Your task to perform on an android device: What's on my calendar tomorrow? Image 0: 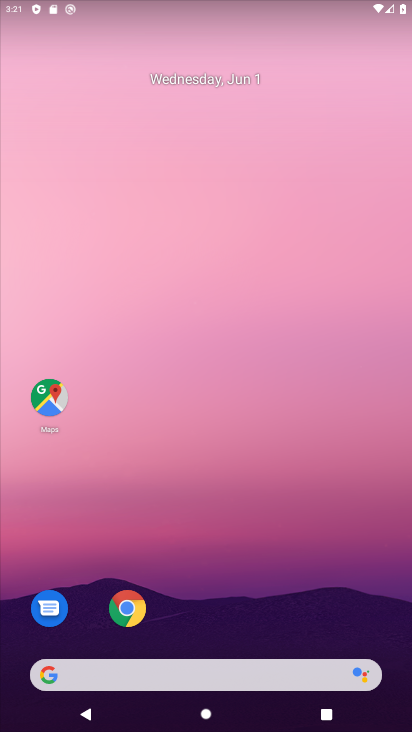
Step 0: drag from (175, 673) to (180, 77)
Your task to perform on an android device: What's on my calendar tomorrow? Image 1: 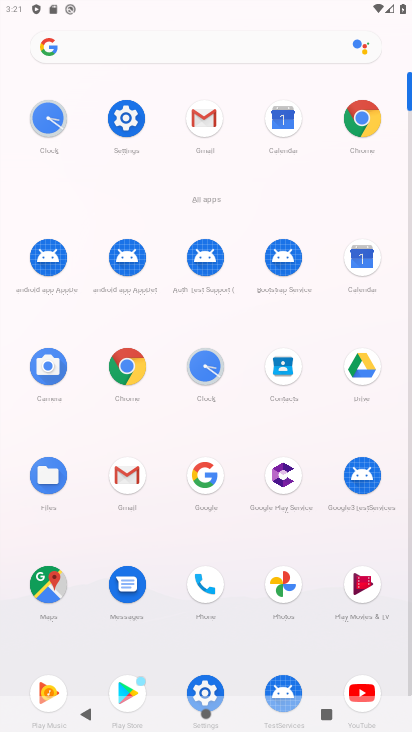
Step 1: click (278, 141)
Your task to perform on an android device: What's on my calendar tomorrow? Image 2: 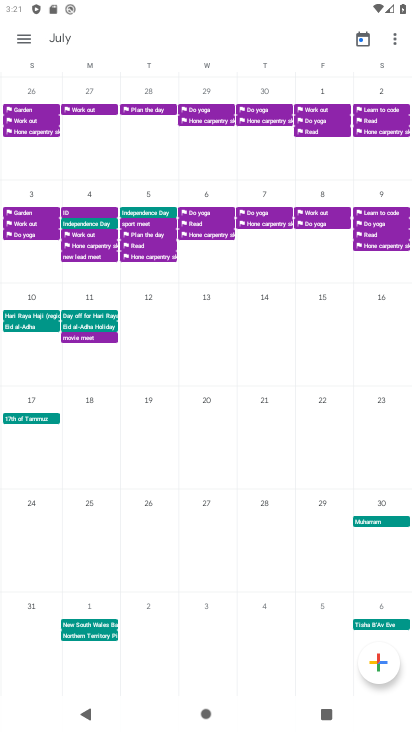
Step 2: click (23, 33)
Your task to perform on an android device: What's on my calendar tomorrow? Image 3: 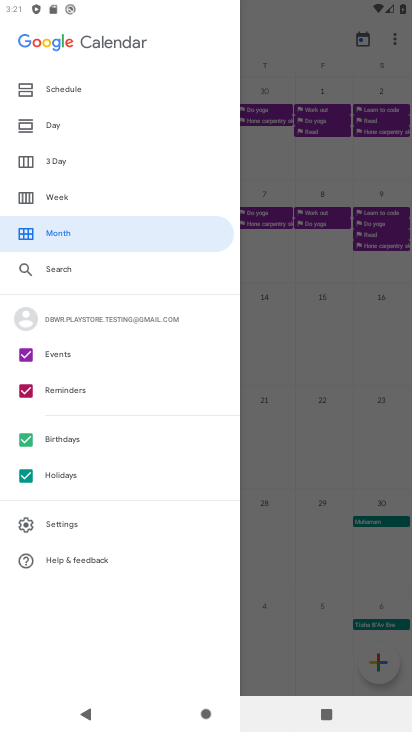
Step 3: click (68, 90)
Your task to perform on an android device: What's on my calendar tomorrow? Image 4: 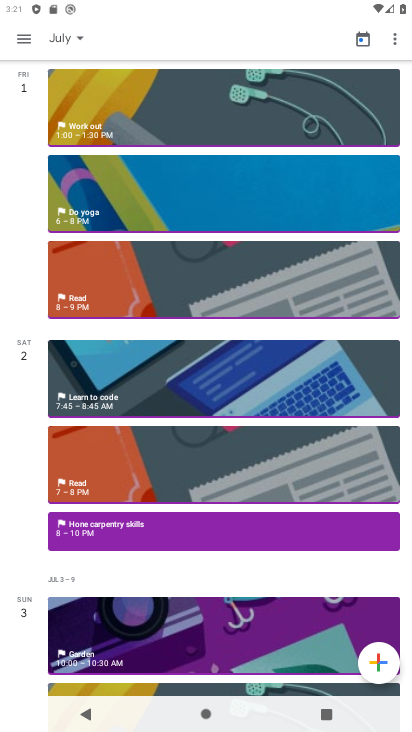
Step 4: drag from (21, 216) to (54, 648)
Your task to perform on an android device: What's on my calendar tomorrow? Image 5: 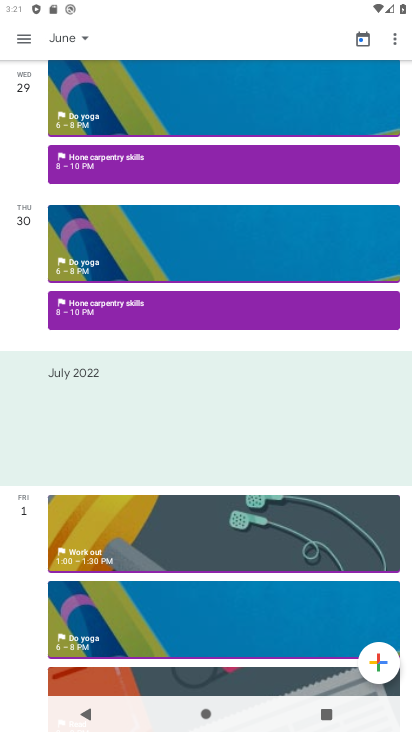
Step 5: click (76, 48)
Your task to perform on an android device: What's on my calendar tomorrow? Image 6: 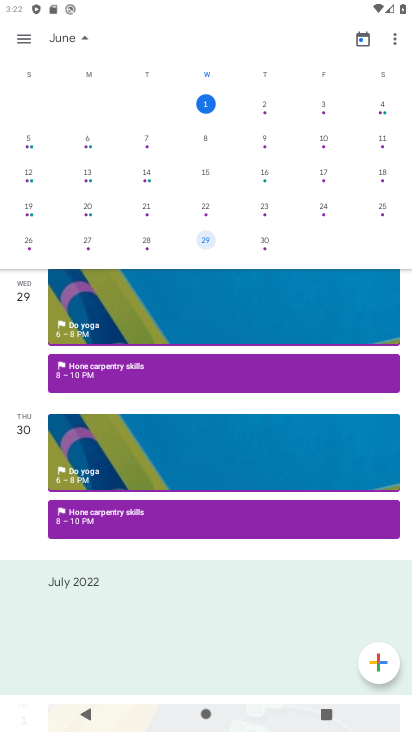
Step 6: drag from (40, 196) to (138, 165)
Your task to perform on an android device: What's on my calendar tomorrow? Image 7: 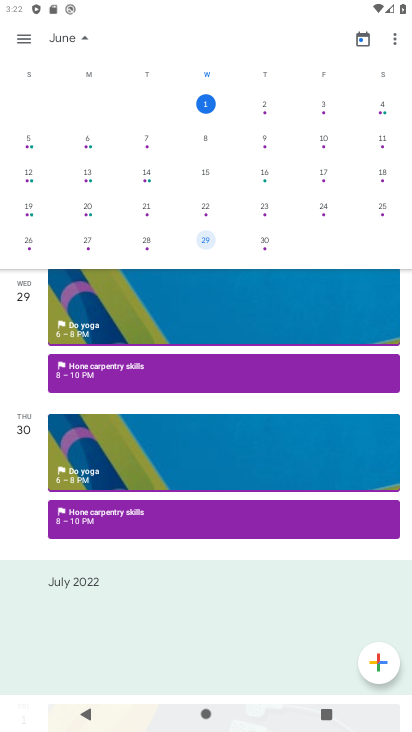
Step 7: click (203, 105)
Your task to perform on an android device: What's on my calendar tomorrow? Image 8: 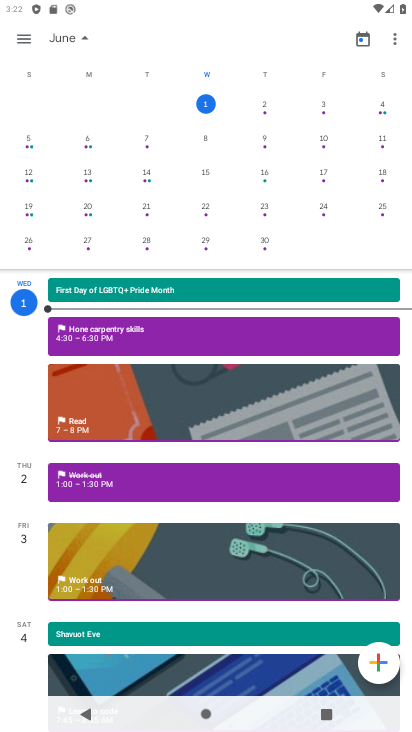
Step 8: click (81, 42)
Your task to perform on an android device: What's on my calendar tomorrow? Image 9: 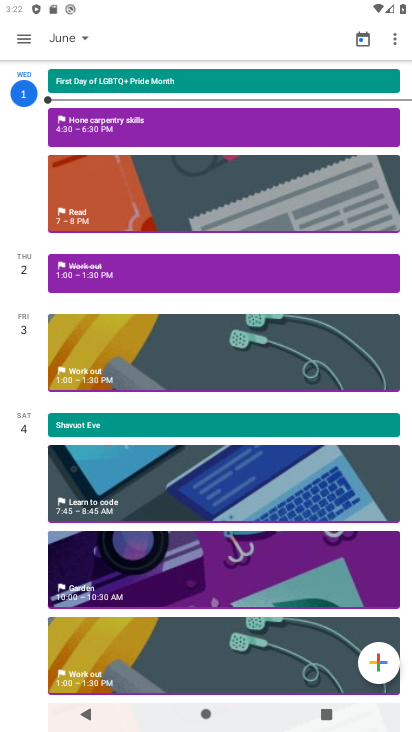
Step 9: task complete